Your task to perform on an android device: empty trash in the gmail app Image 0: 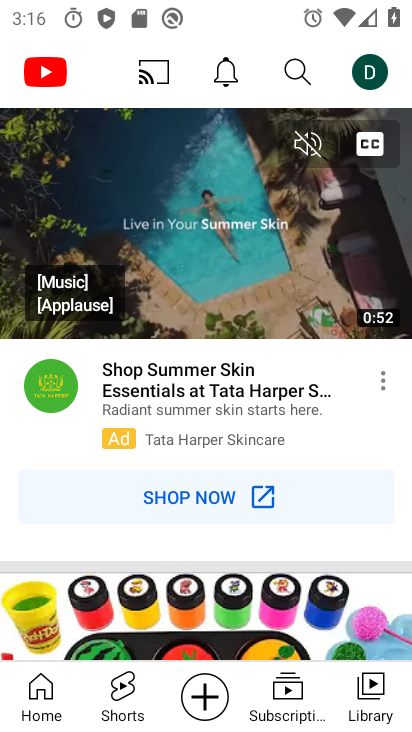
Step 0: press home button
Your task to perform on an android device: empty trash in the gmail app Image 1: 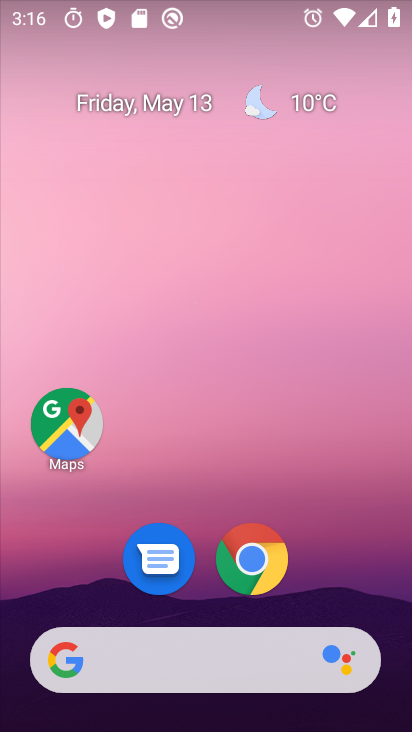
Step 1: drag from (197, 613) to (205, 250)
Your task to perform on an android device: empty trash in the gmail app Image 2: 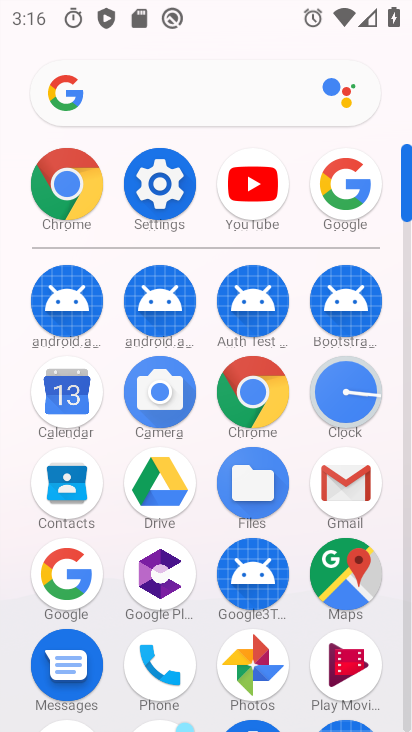
Step 2: click (335, 487)
Your task to perform on an android device: empty trash in the gmail app Image 3: 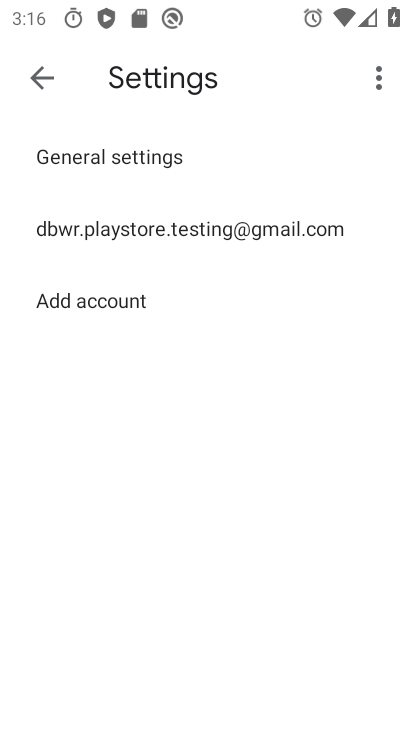
Step 3: click (41, 80)
Your task to perform on an android device: empty trash in the gmail app Image 4: 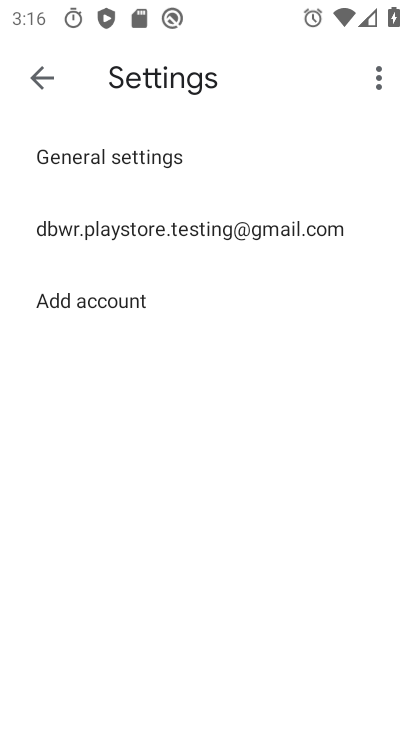
Step 4: click (41, 80)
Your task to perform on an android device: empty trash in the gmail app Image 5: 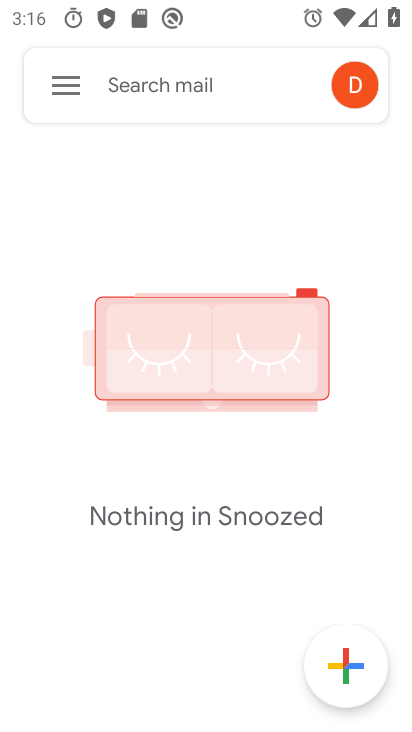
Step 5: click (63, 92)
Your task to perform on an android device: empty trash in the gmail app Image 6: 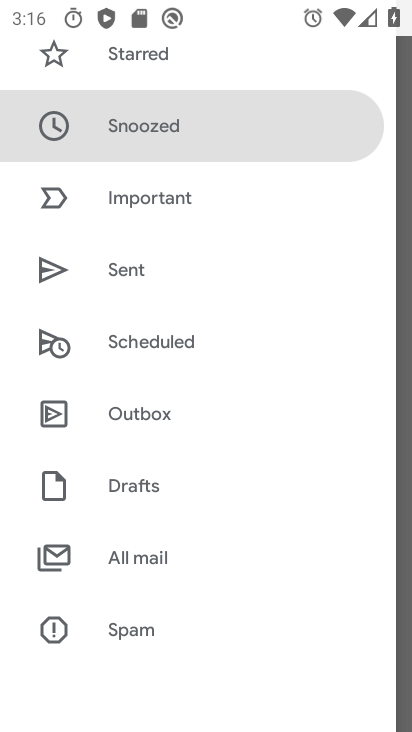
Step 6: drag from (216, 588) to (254, 411)
Your task to perform on an android device: empty trash in the gmail app Image 7: 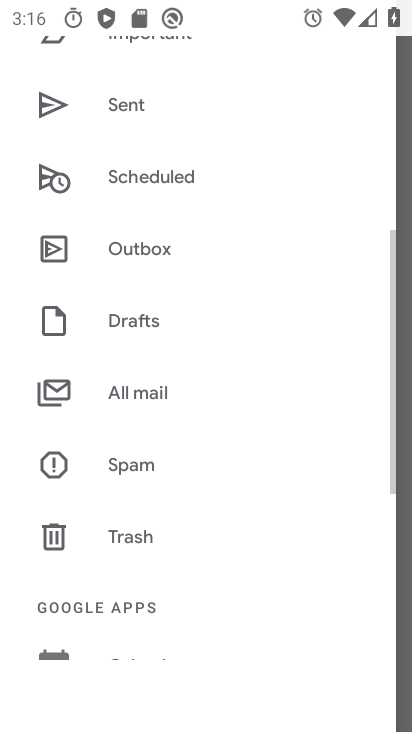
Step 7: click (164, 549)
Your task to perform on an android device: empty trash in the gmail app Image 8: 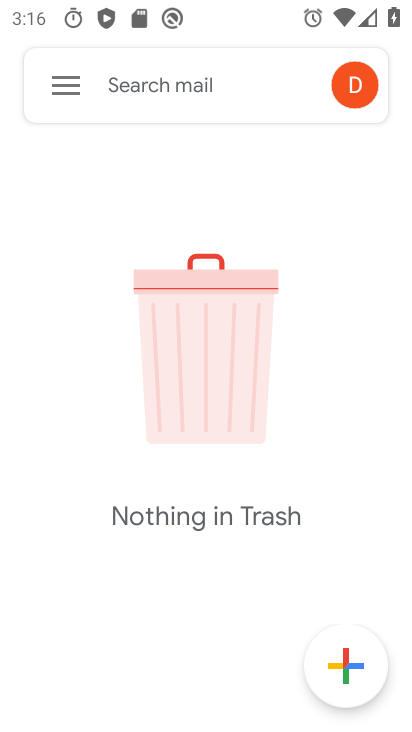
Step 8: task complete